Your task to perform on an android device: Go to network settings Image 0: 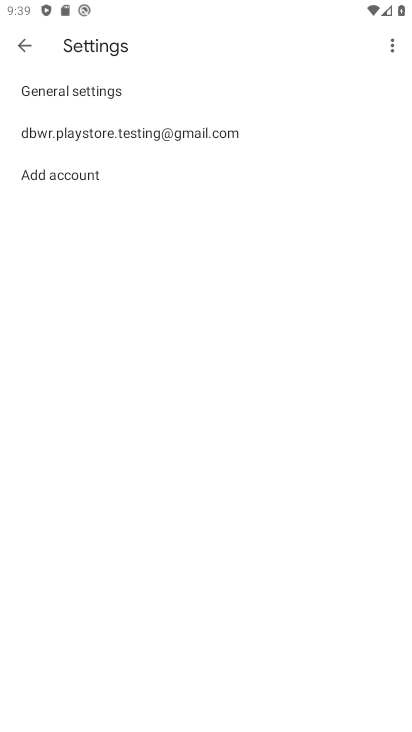
Step 0: press home button
Your task to perform on an android device: Go to network settings Image 1: 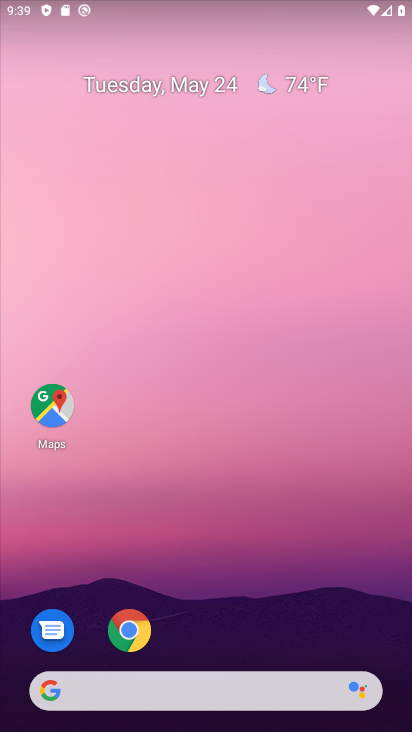
Step 1: drag from (342, 641) to (335, 49)
Your task to perform on an android device: Go to network settings Image 2: 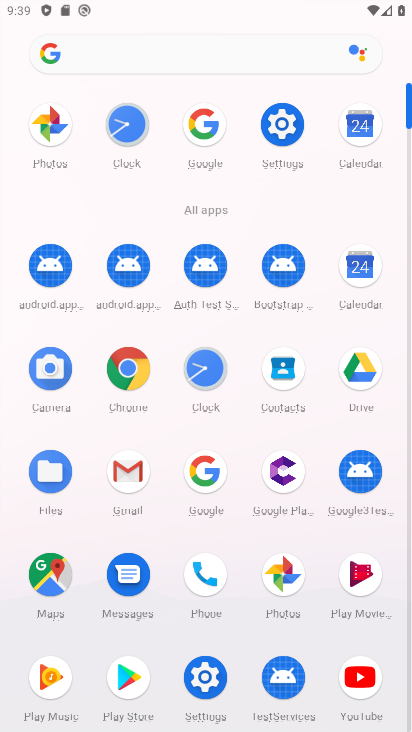
Step 2: drag from (307, 6) to (310, 78)
Your task to perform on an android device: Go to network settings Image 3: 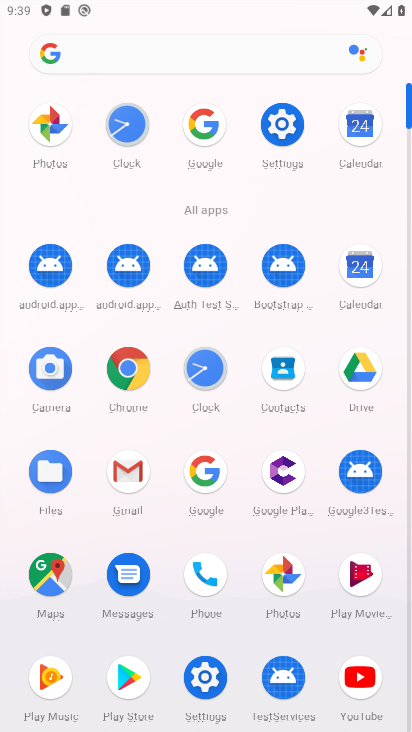
Step 3: click (286, 142)
Your task to perform on an android device: Go to network settings Image 4: 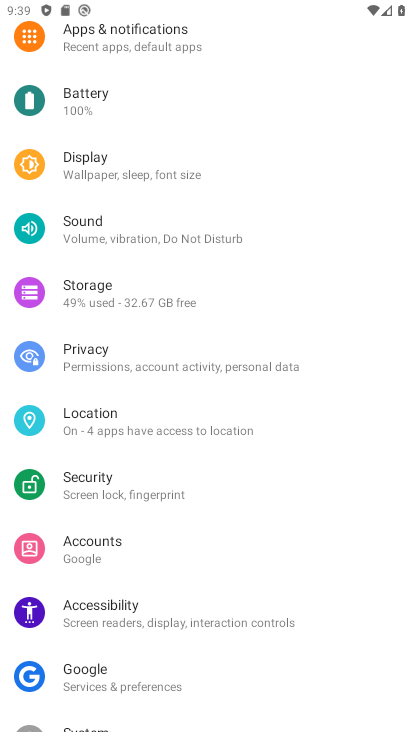
Step 4: drag from (212, 177) to (197, 593)
Your task to perform on an android device: Go to network settings Image 5: 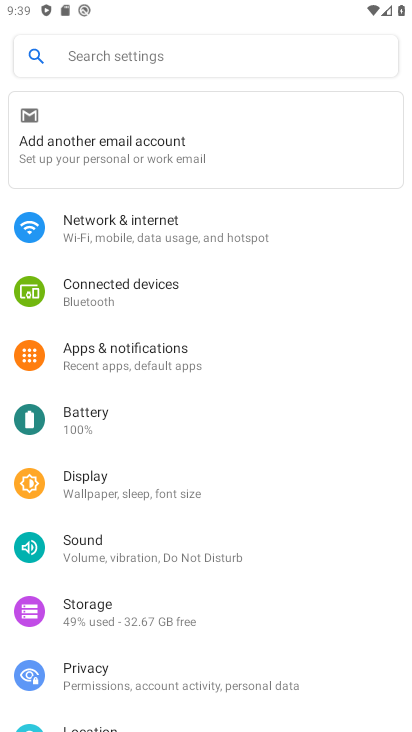
Step 5: click (120, 216)
Your task to perform on an android device: Go to network settings Image 6: 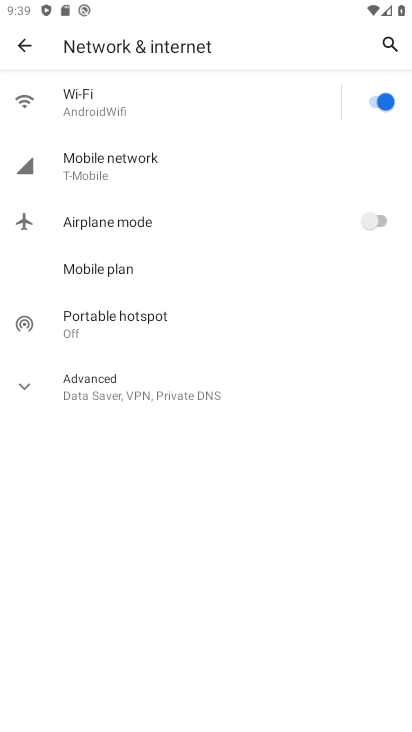
Step 6: task complete